Your task to perform on an android device: Search for the best books on Goodreads. Image 0: 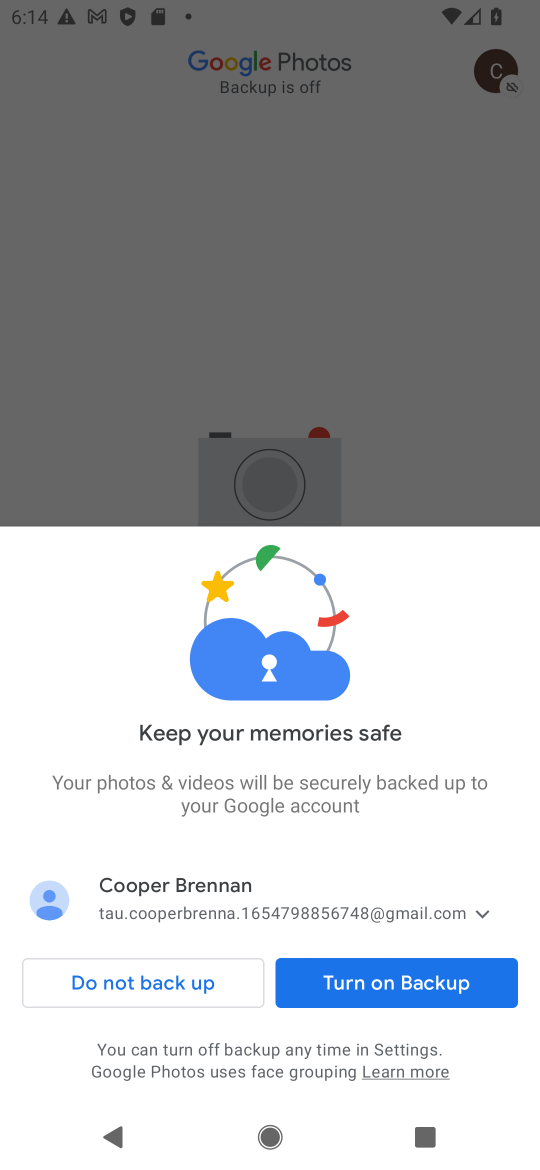
Step 0: press home button
Your task to perform on an android device: Search for the best books on Goodreads. Image 1: 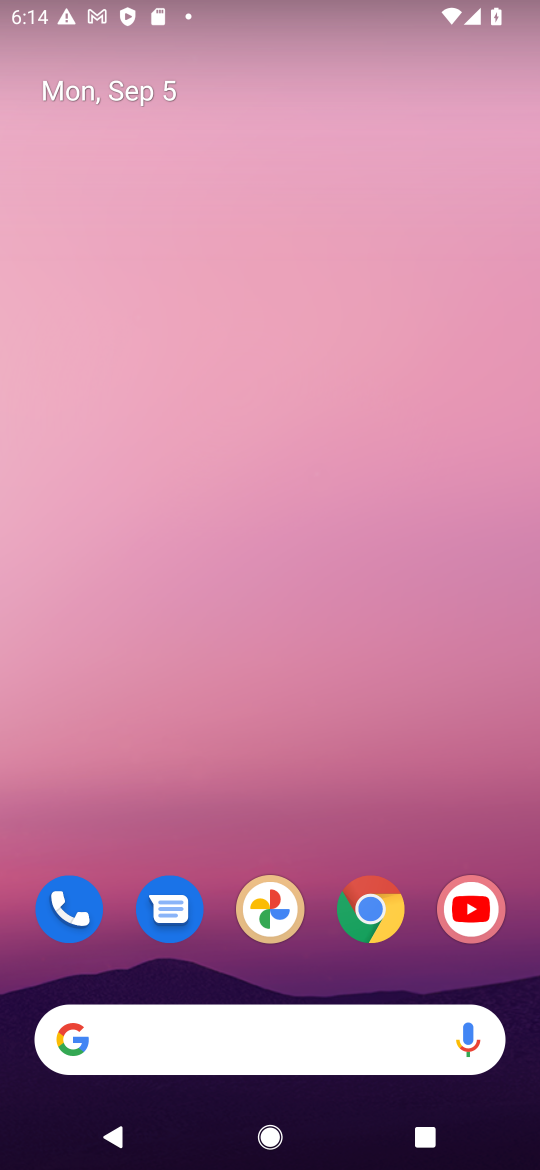
Step 1: drag from (302, 1014) to (302, 298)
Your task to perform on an android device: Search for the best books on Goodreads. Image 2: 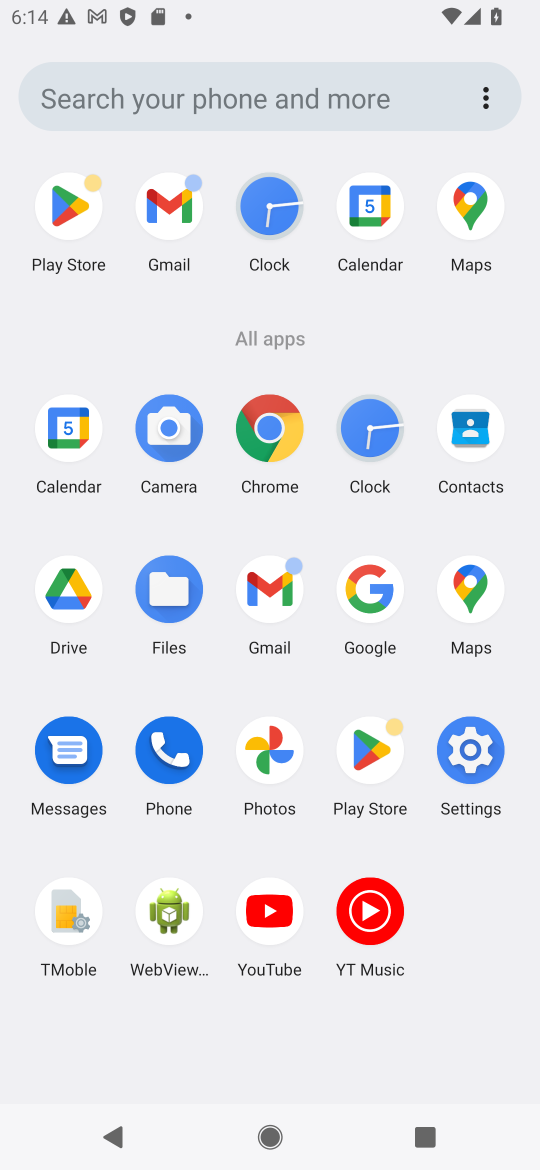
Step 2: click (350, 593)
Your task to perform on an android device: Search for the best books on Goodreads. Image 3: 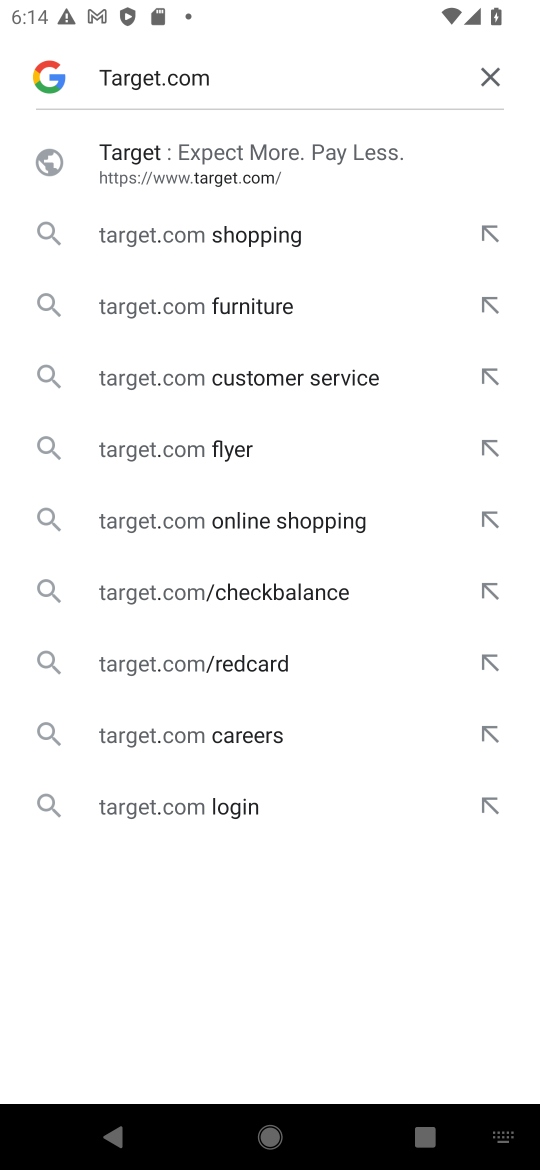
Step 3: click (497, 83)
Your task to perform on an android device: Search for the best books on Goodreads. Image 4: 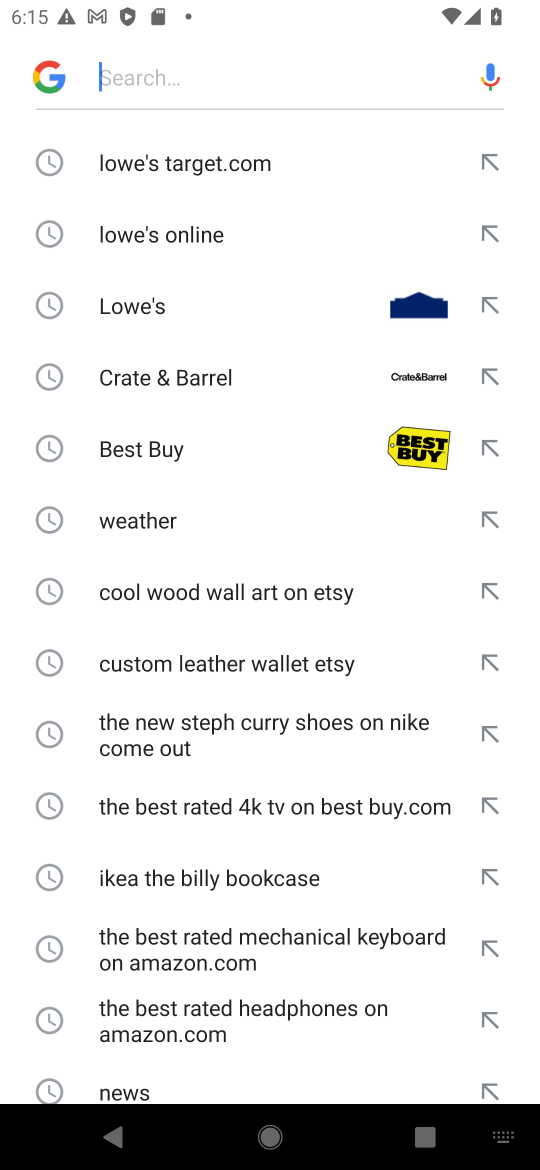
Step 4: type "Goodreads"
Your task to perform on an android device: Search for the best books on Goodreads. Image 5: 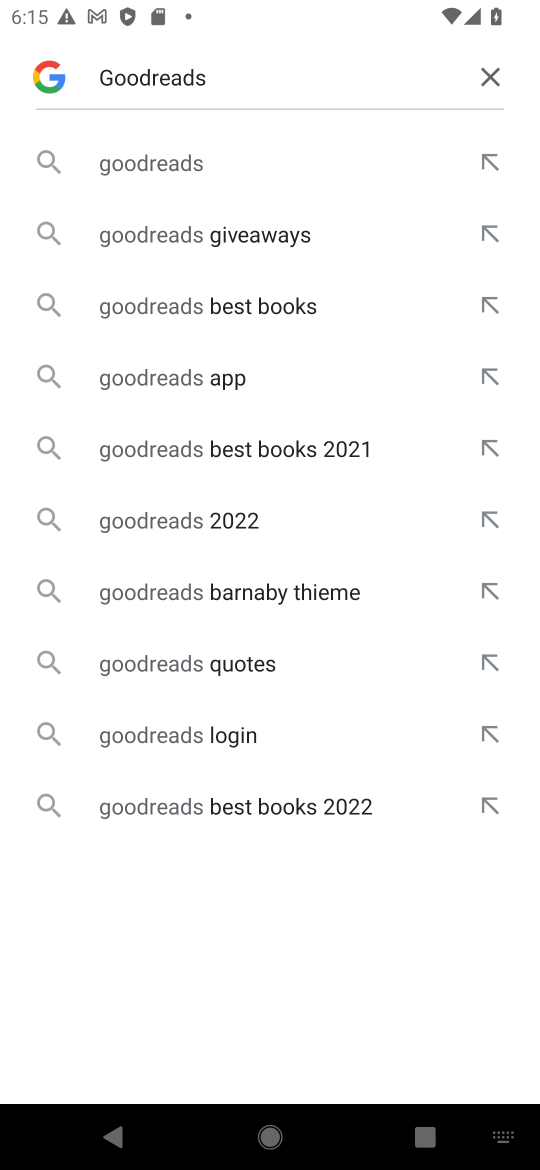
Step 5: click (136, 156)
Your task to perform on an android device: Search for the best books on Goodreads. Image 6: 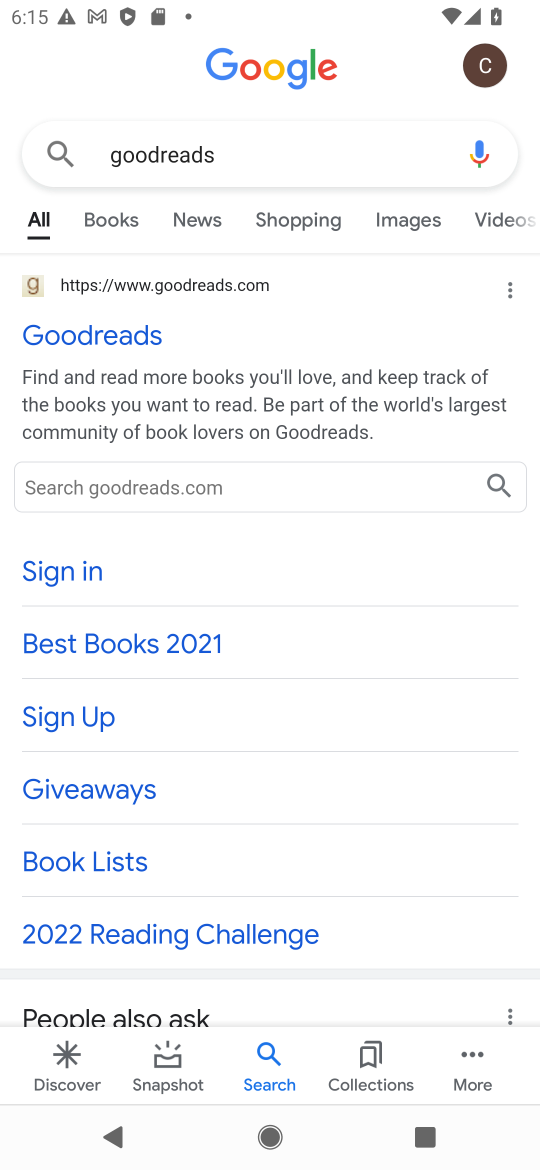
Step 6: click (93, 335)
Your task to perform on an android device: Search for the best books on Goodreads. Image 7: 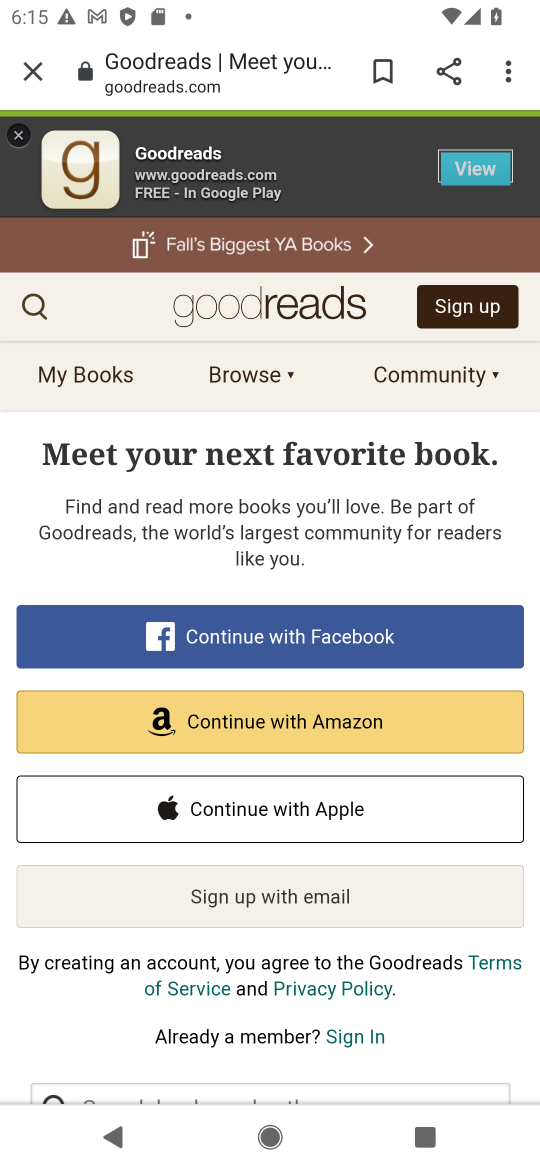
Step 7: click (33, 302)
Your task to perform on an android device: Search for the best books on Goodreads. Image 8: 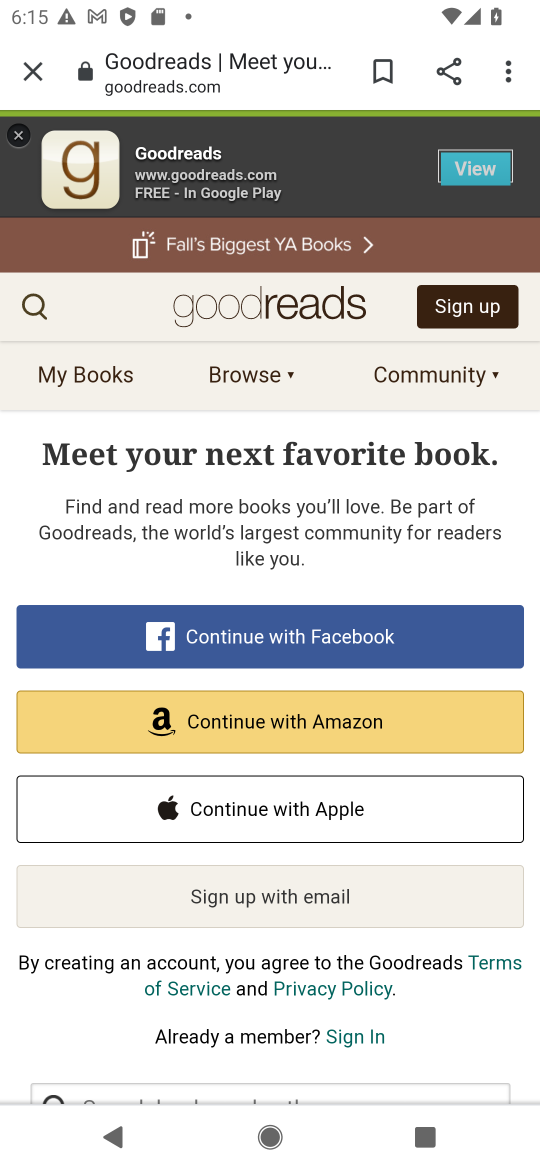
Step 8: click (31, 310)
Your task to perform on an android device: Search for the best books on Goodreads. Image 9: 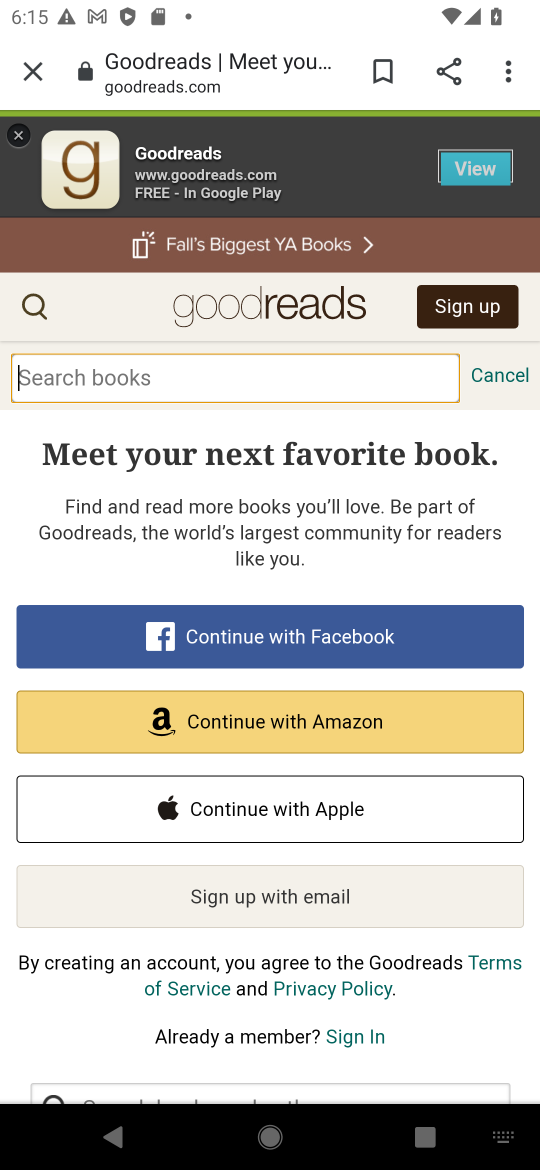
Step 9: type "best books"
Your task to perform on an android device: Search for the best books on Goodreads. Image 10: 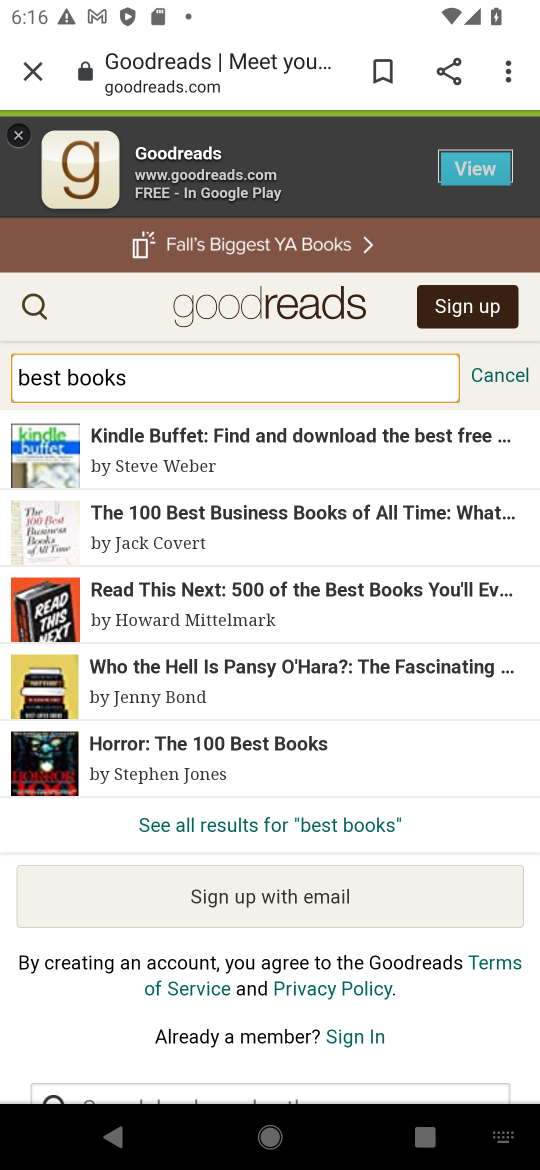
Step 10: click (343, 825)
Your task to perform on an android device: Search for the best books on Goodreads. Image 11: 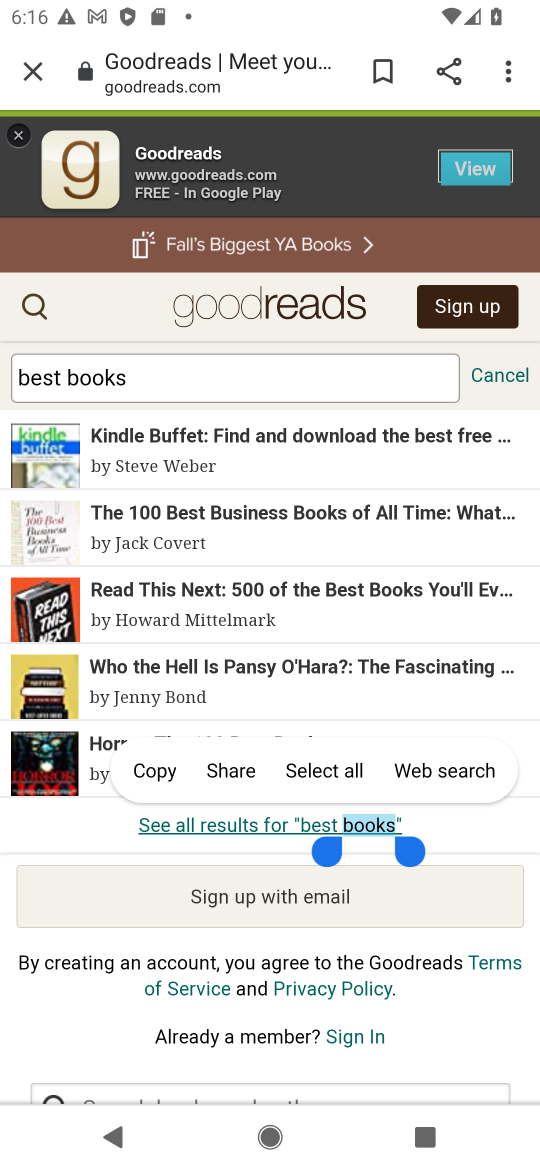
Step 11: task complete